Your task to perform on an android device: Go to accessibility settings Image 0: 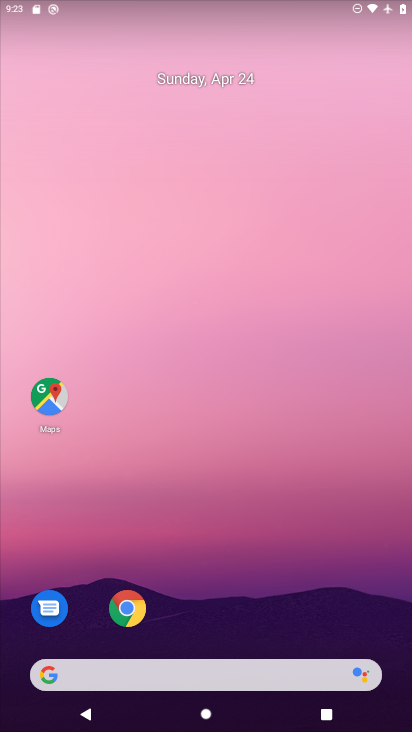
Step 0: drag from (203, 618) to (205, 57)
Your task to perform on an android device: Go to accessibility settings Image 1: 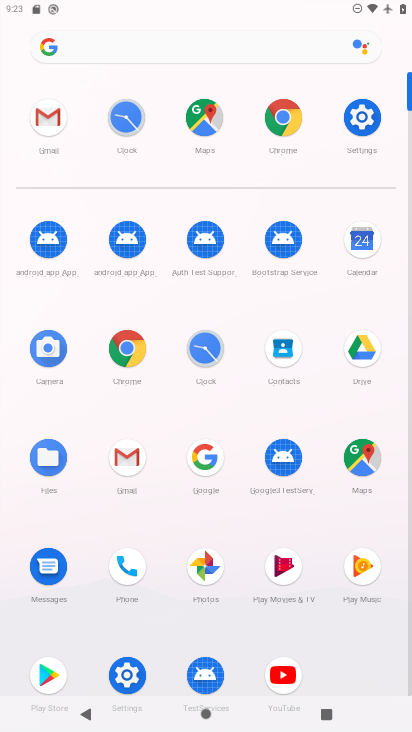
Step 1: click (366, 123)
Your task to perform on an android device: Go to accessibility settings Image 2: 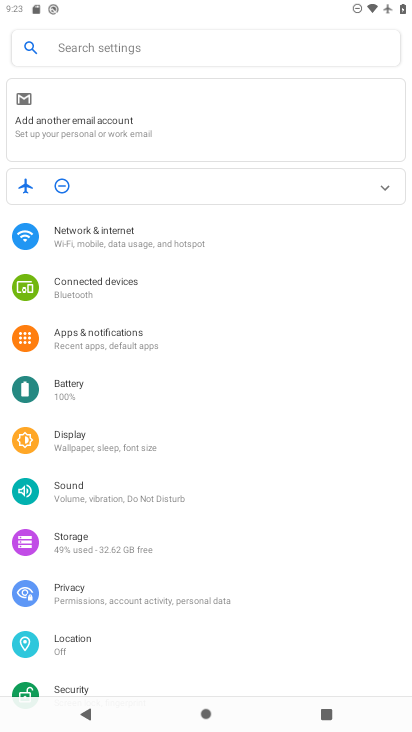
Step 2: drag from (157, 620) to (159, 222)
Your task to perform on an android device: Go to accessibility settings Image 3: 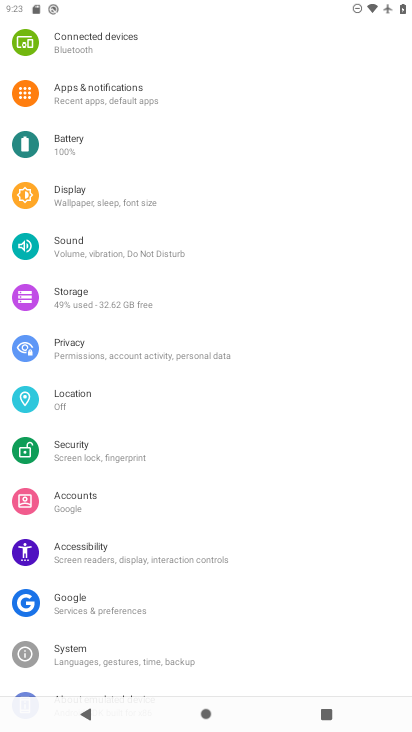
Step 3: click (109, 555)
Your task to perform on an android device: Go to accessibility settings Image 4: 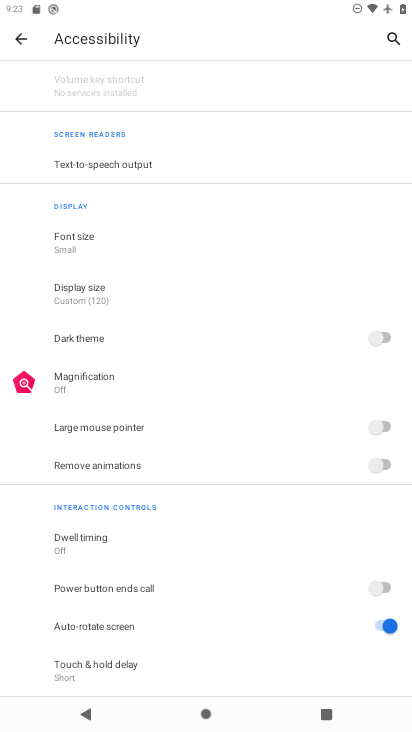
Step 4: task complete